Your task to perform on an android device: Open internet settings Image 0: 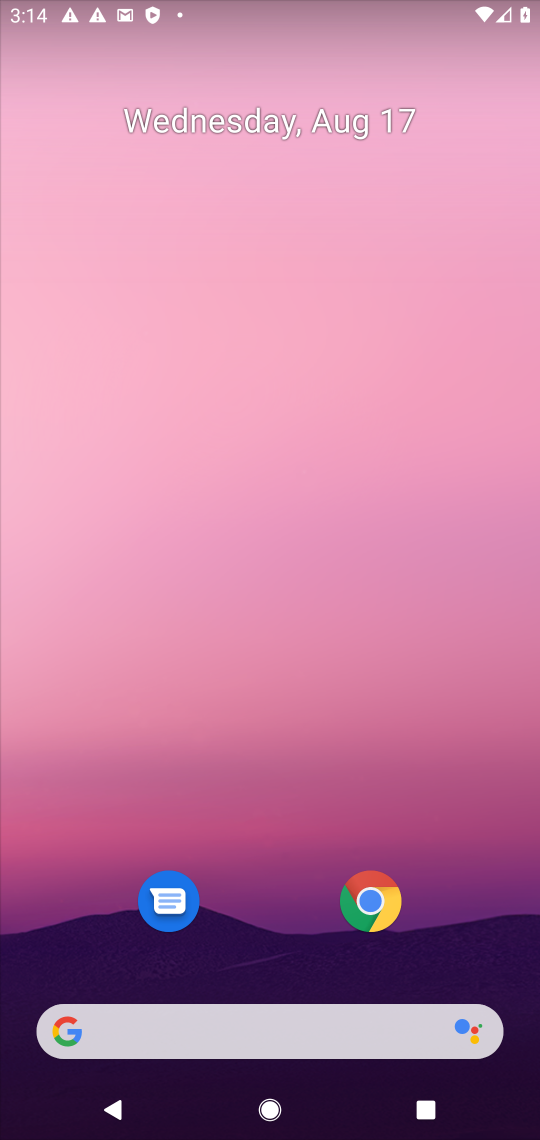
Step 0: press home button
Your task to perform on an android device: Open internet settings Image 1: 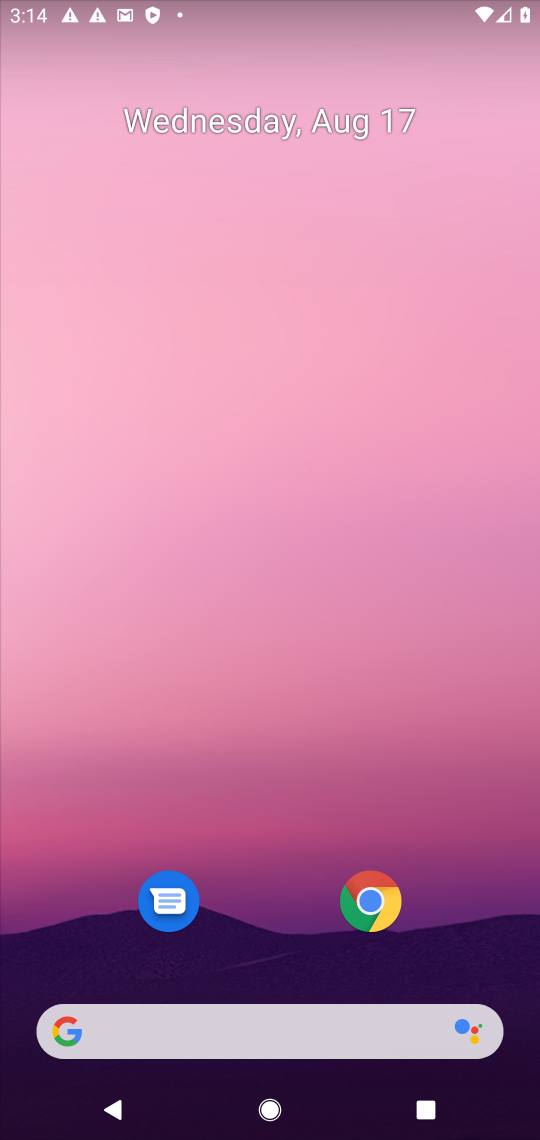
Step 1: drag from (266, 998) to (266, 382)
Your task to perform on an android device: Open internet settings Image 2: 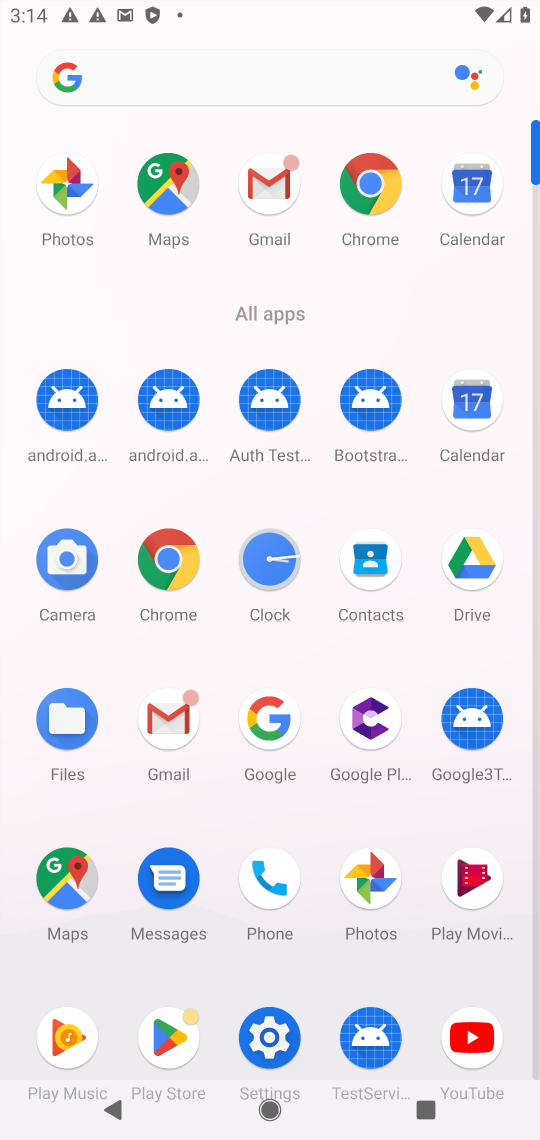
Step 2: click (283, 1041)
Your task to perform on an android device: Open internet settings Image 3: 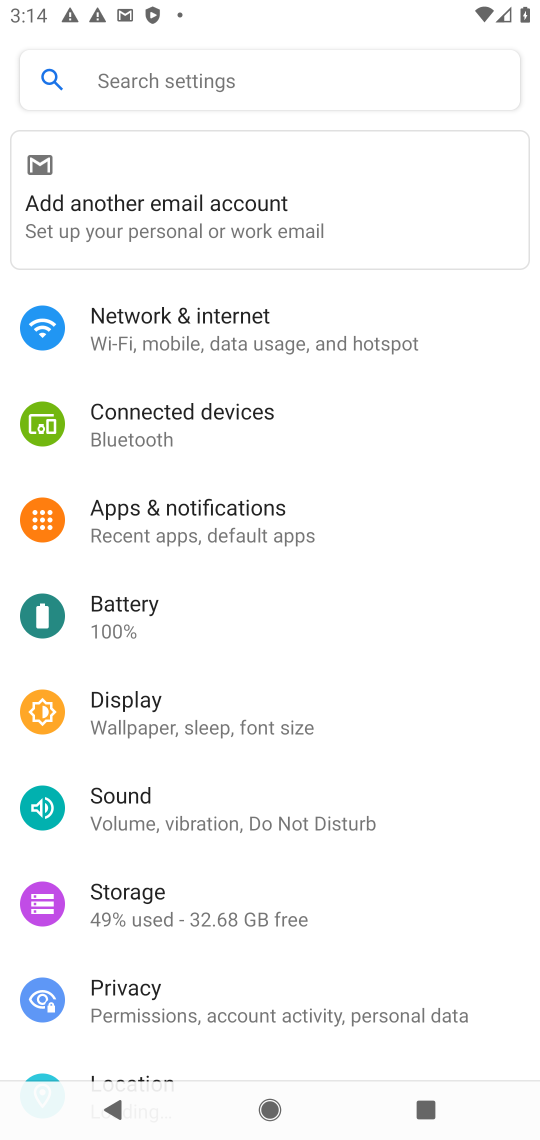
Step 3: click (218, 306)
Your task to perform on an android device: Open internet settings Image 4: 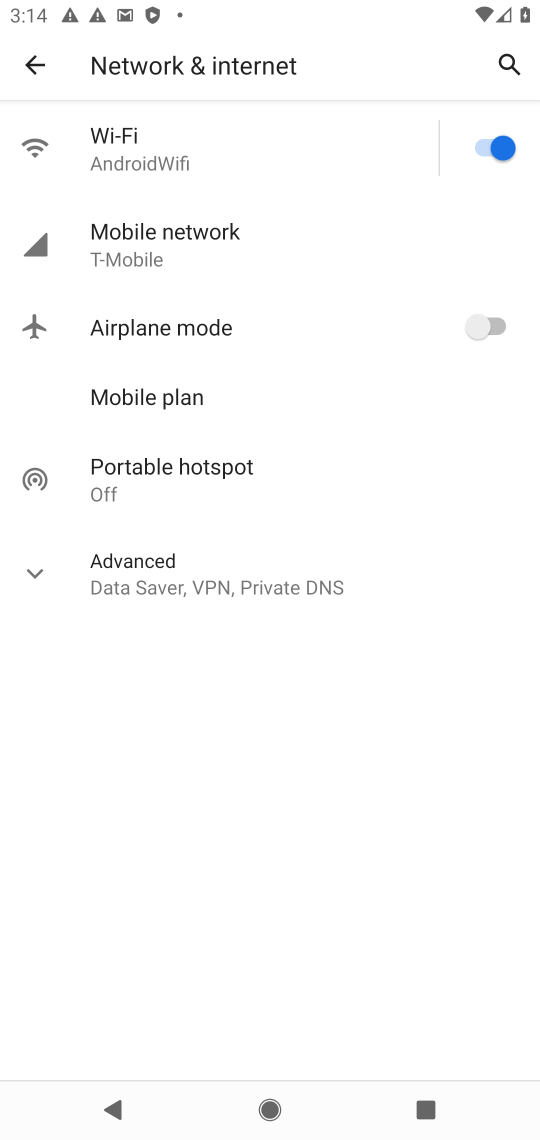
Step 4: click (192, 564)
Your task to perform on an android device: Open internet settings Image 5: 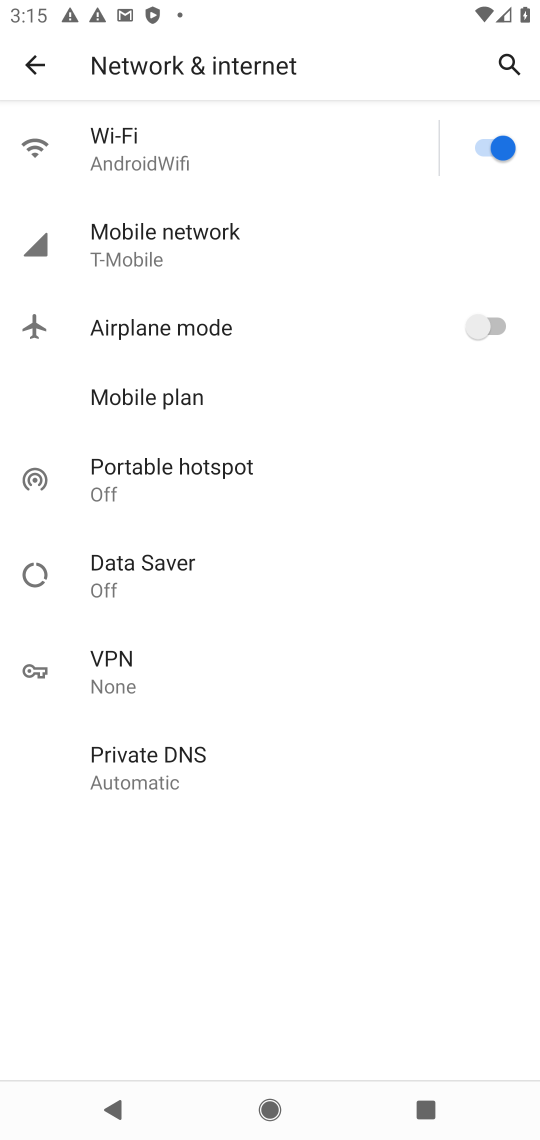
Step 5: task complete